Your task to perform on an android device: install app "PlayWell" Image 0: 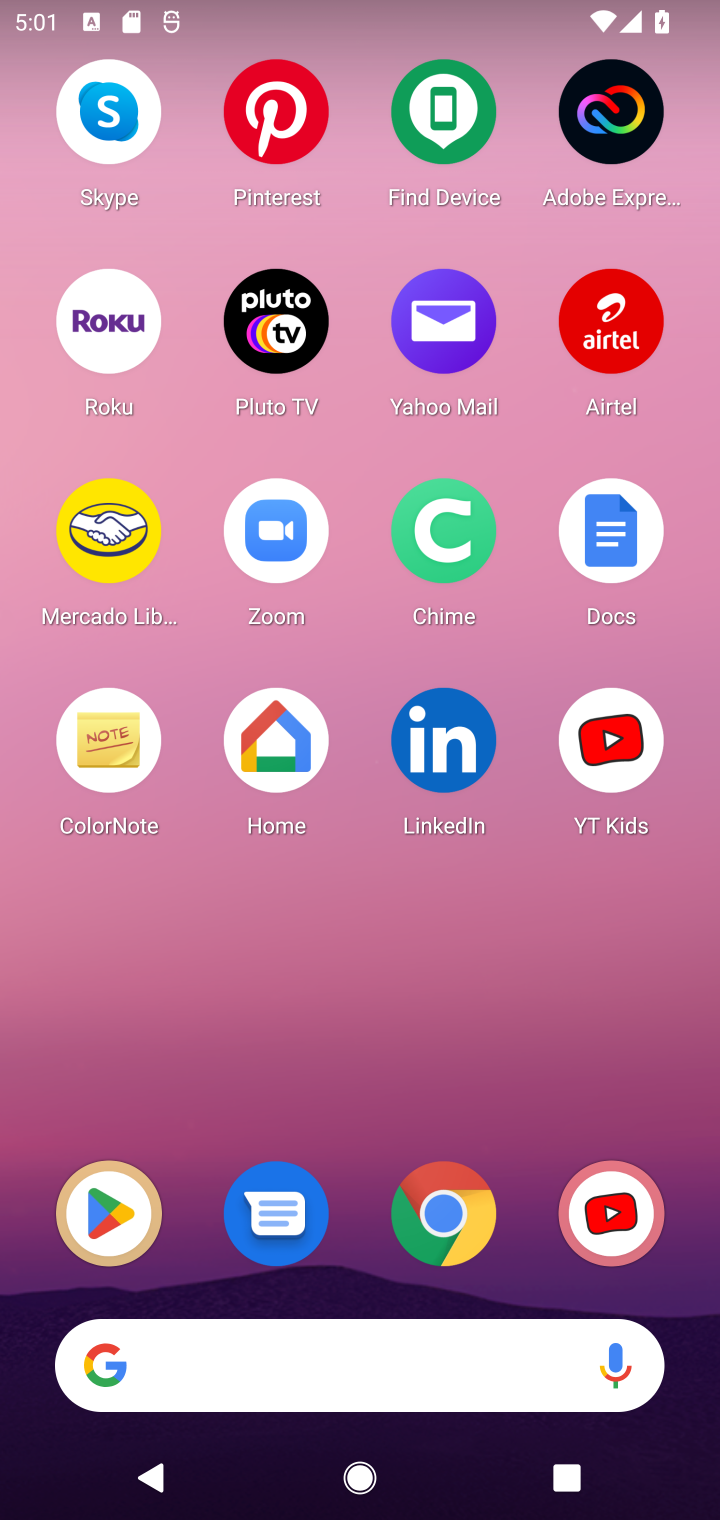
Step 0: drag from (558, 976) to (459, 117)
Your task to perform on an android device: install app "PlayWell" Image 1: 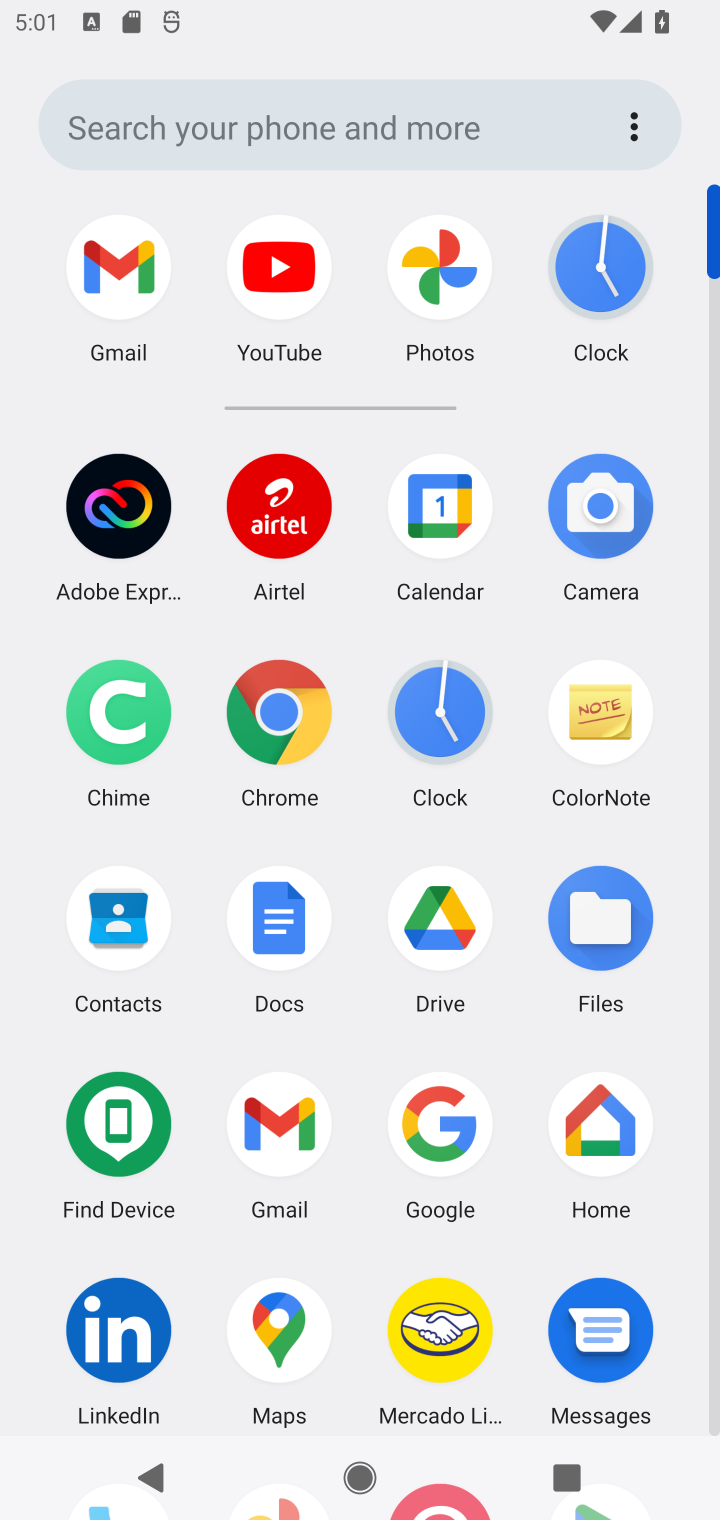
Step 1: drag from (512, 1272) to (550, 462)
Your task to perform on an android device: install app "PlayWell" Image 2: 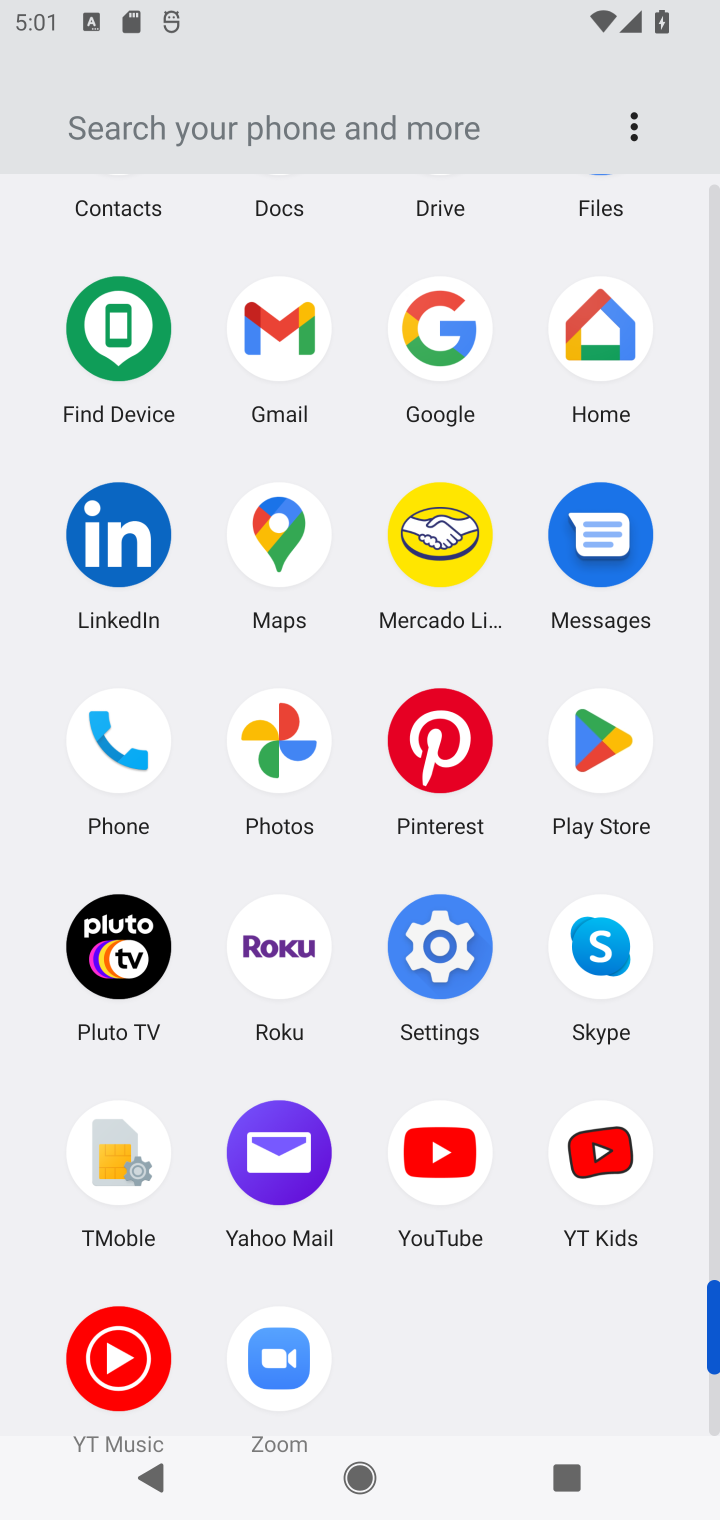
Step 2: click (631, 732)
Your task to perform on an android device: install app "PlayWell" Image 3: 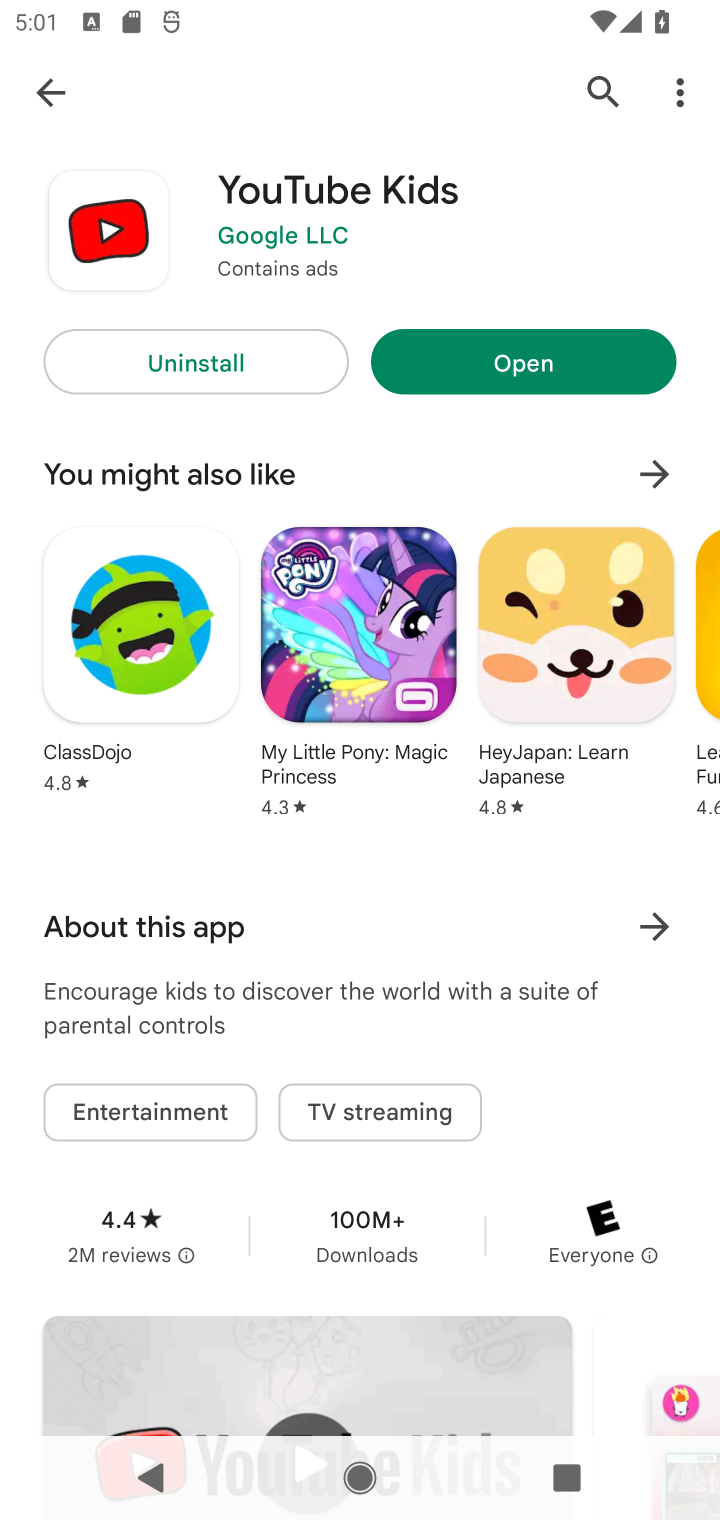
Step 3: click (621, 81)
Your task to perform on an android device: install app "PlayWell" Image 4: 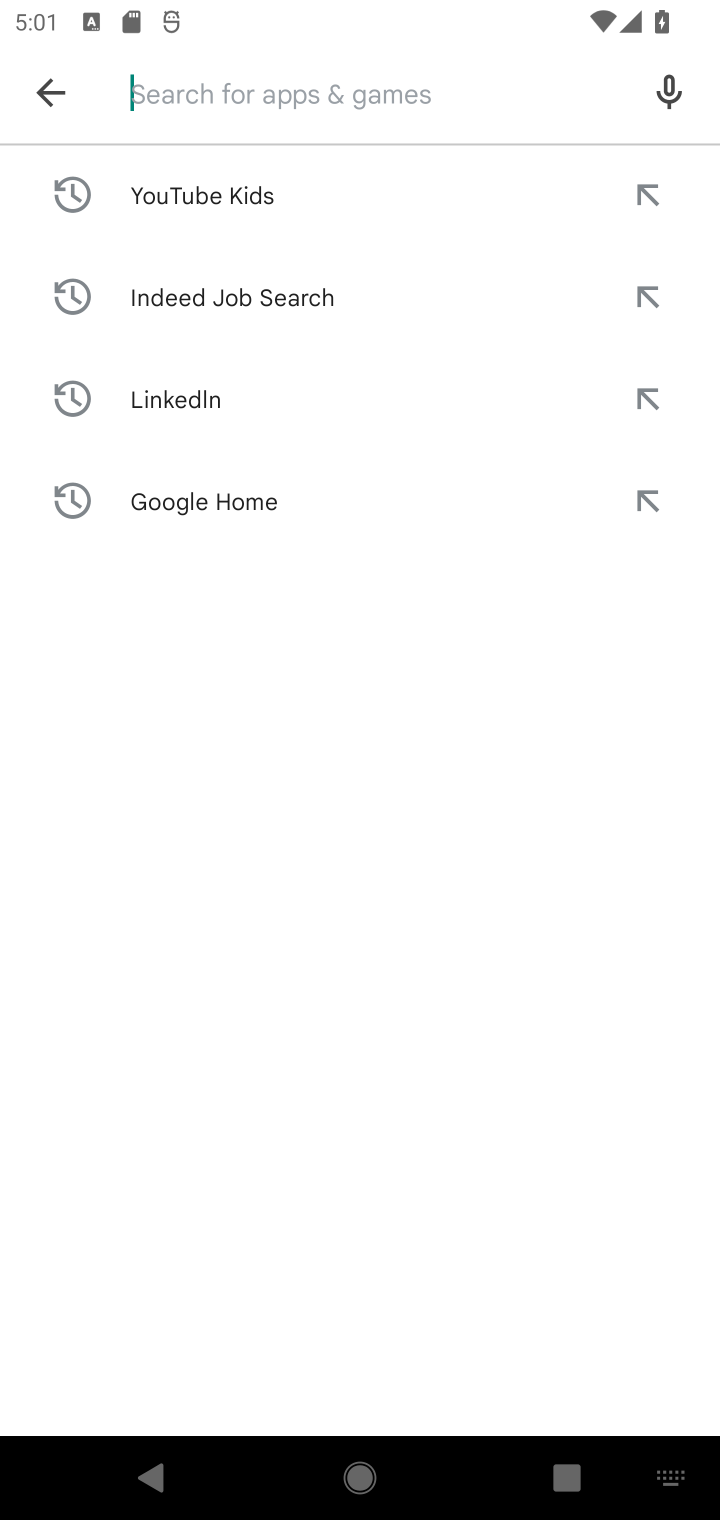
Step 4: type "PlayWell"
Your task to perform on an android device: install app "PlayWell" Image 5: 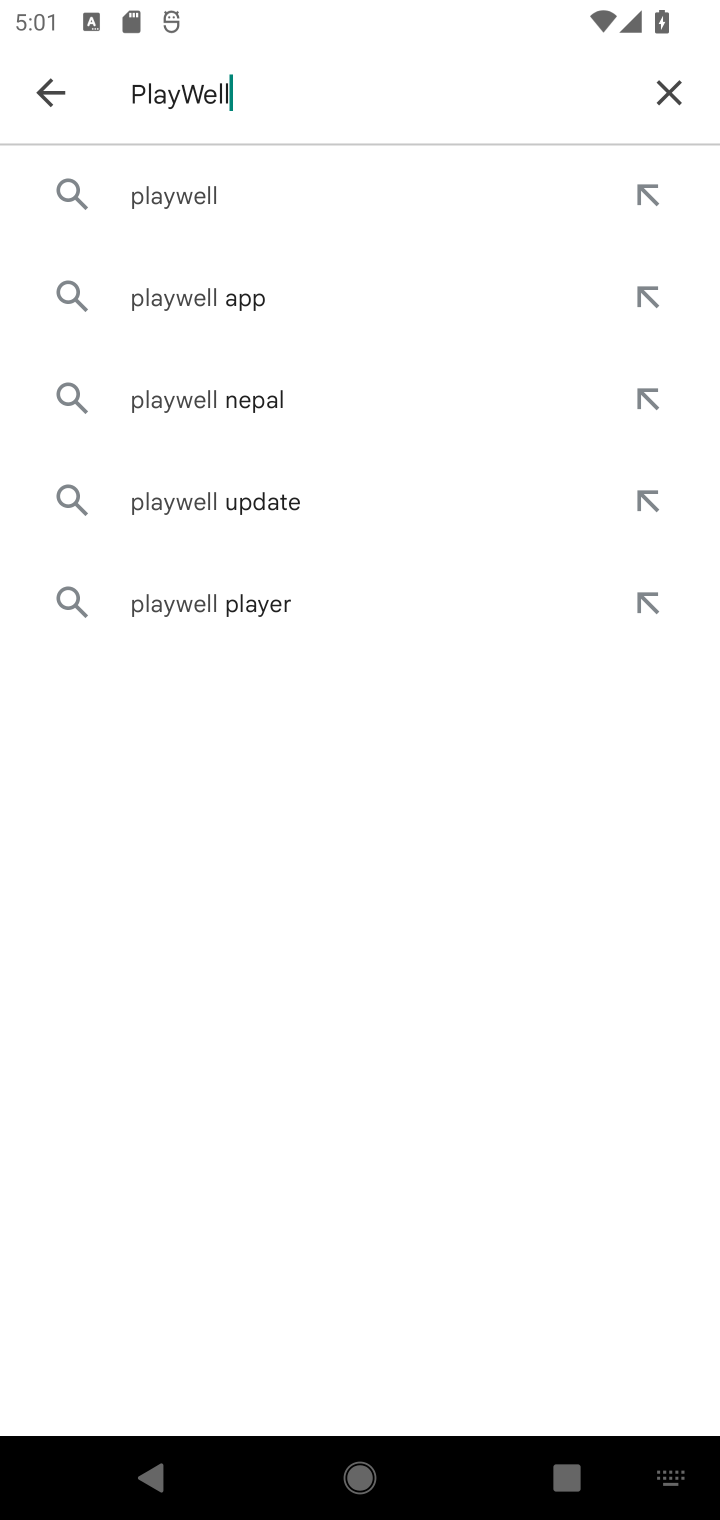
Step 5: press enter
Your task to perform on an android device: install app "PlayWell" Image 6: 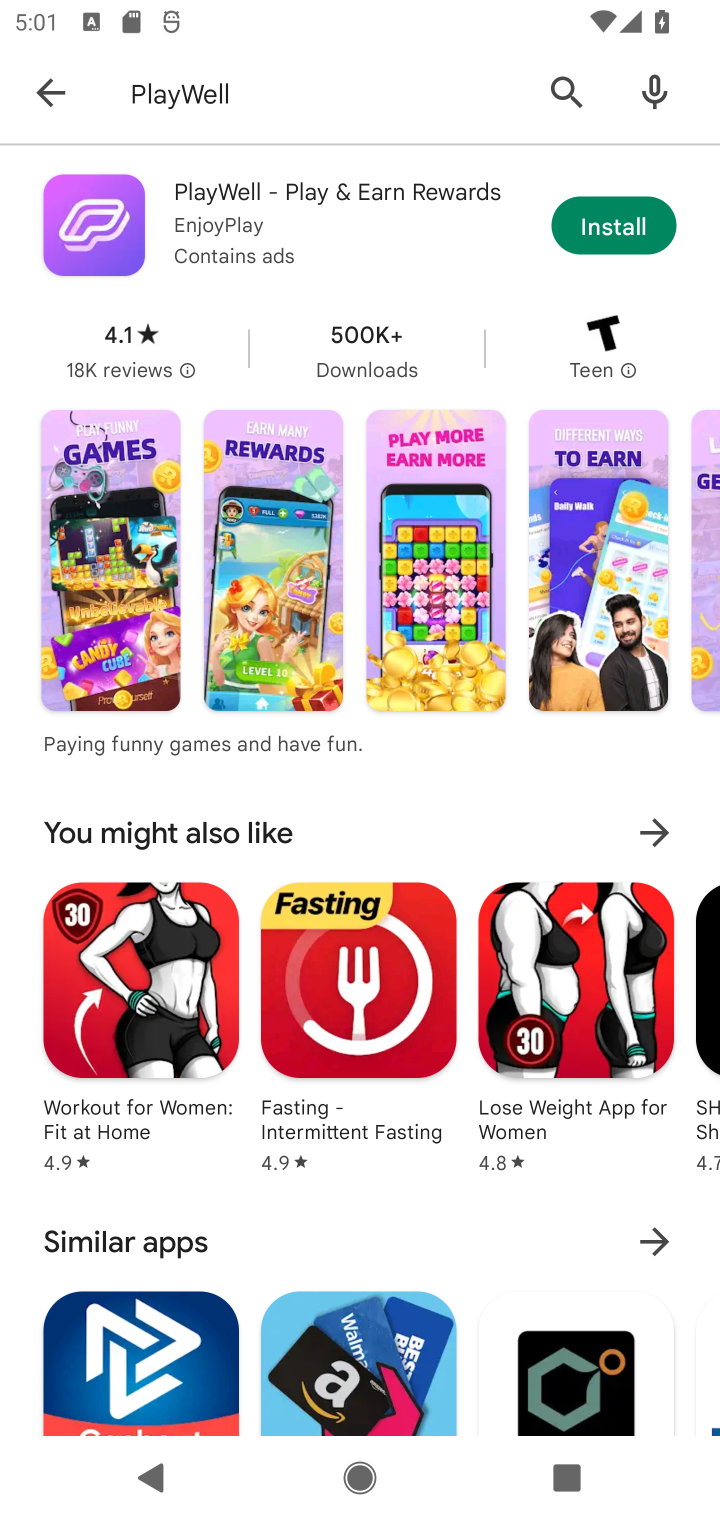
Step 6: click (624, 223)
Your task to perform on an android device: install app "PlayWell" Image 7: 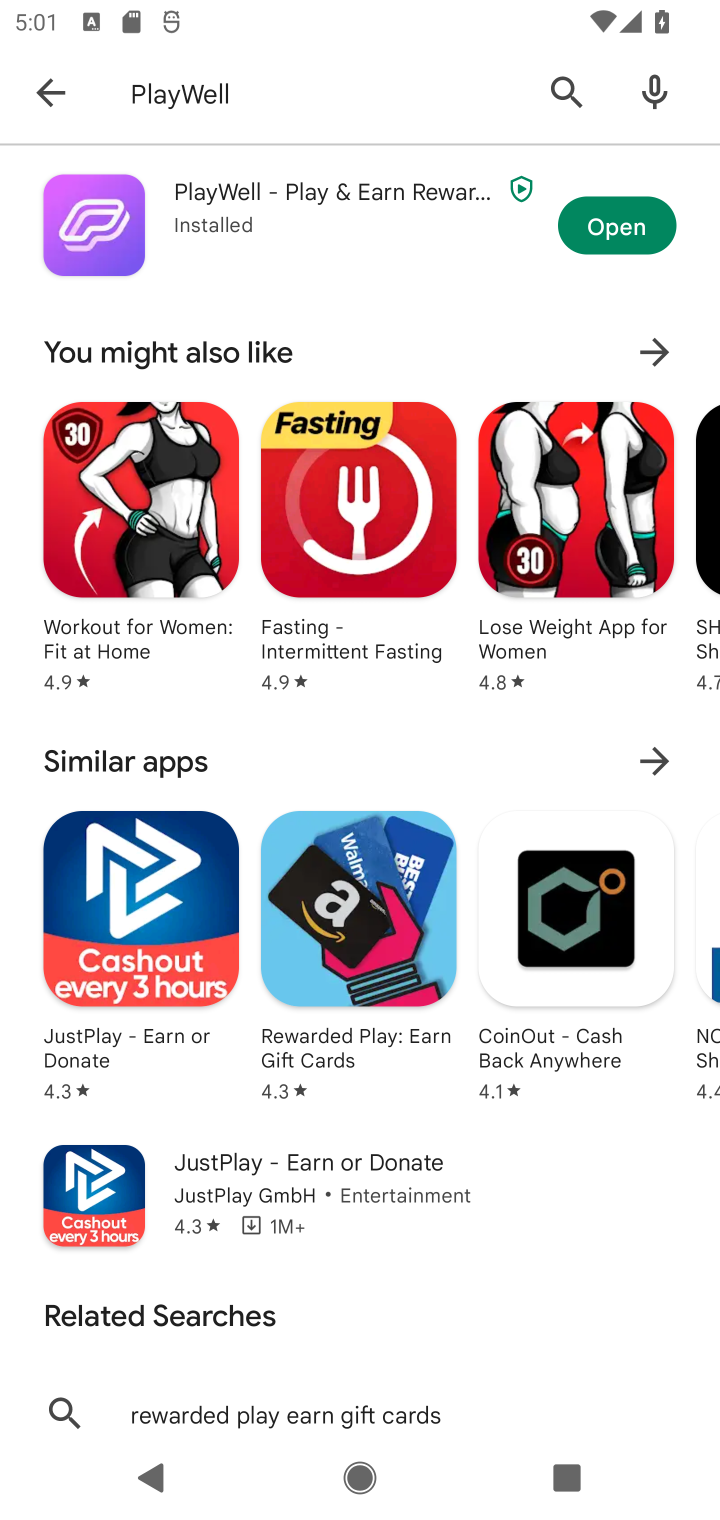
Step 7: task complete